Your task to perform on an android device: Open network settings Image 0: 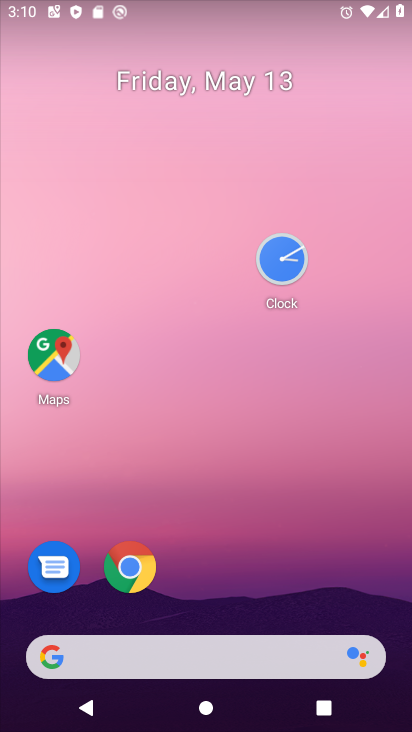
Step 0: drag from (249, 588) to (241, 154)
Your task to perform on an android device: Open network settings Image 1: 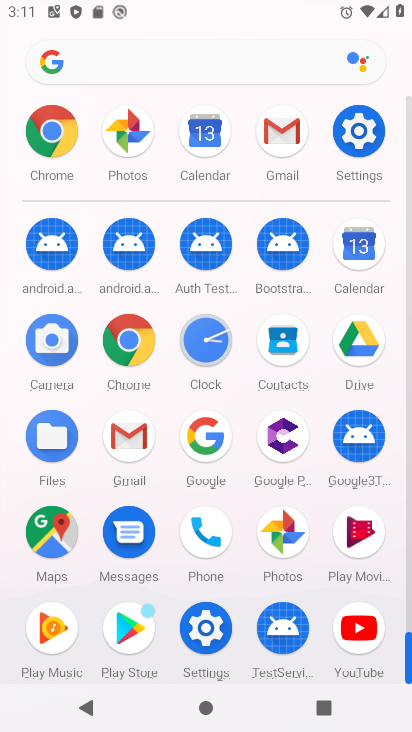
Step 1: click (196, 657)
Your task to perform on an android device: Open network settings Image 2: 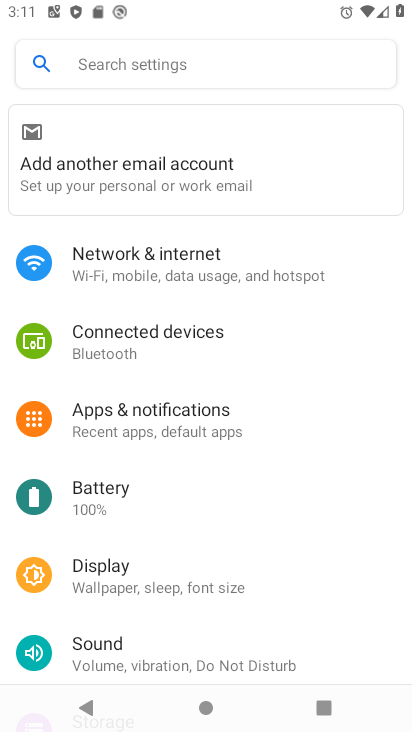
Step 2: click (195, 278)
Your task to perform on an android device: Open network settings Image 3: 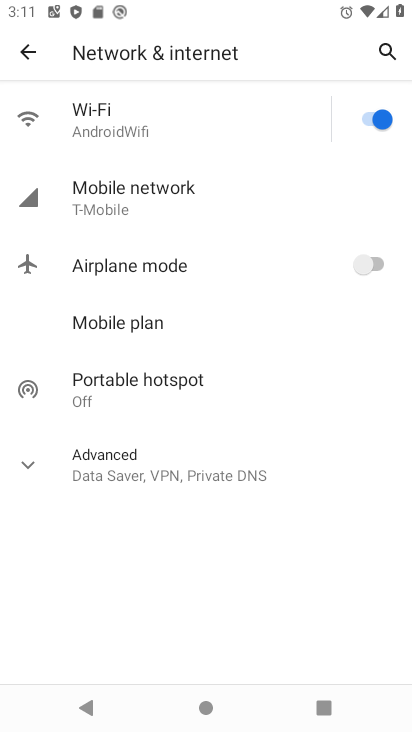
Step 3: task complete